Your task to perform on an android device: Search for sushi restaurants on Maps Image 0: 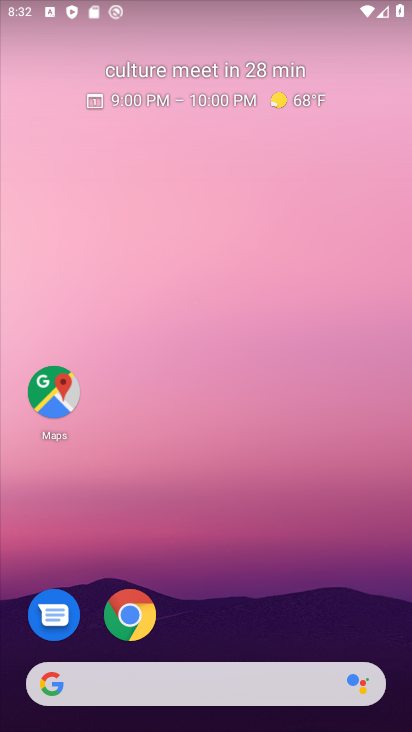
Step 0: click (52, 382)
Your task to perform on an android device: Search for sushi restaurants on Maps Image 1: 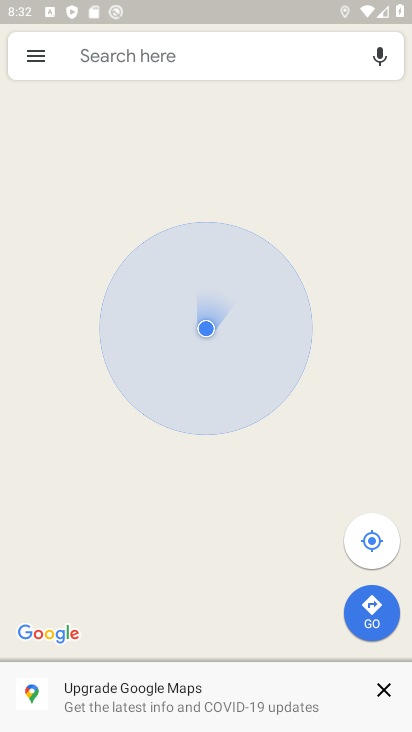
Step 1: click (128, 45)
Your task to perform on an android device: Search for sushi restaurants on Maps Image 2: 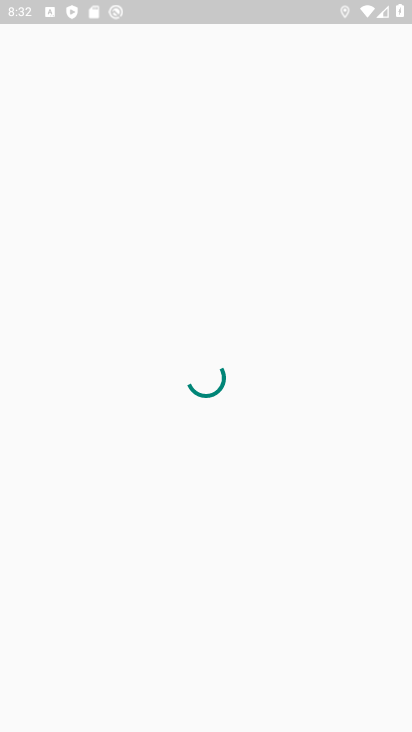
Step 2: click (105, 53)
Your task to perform on an android device: Search for sushi restaurants on Maps Image 3: 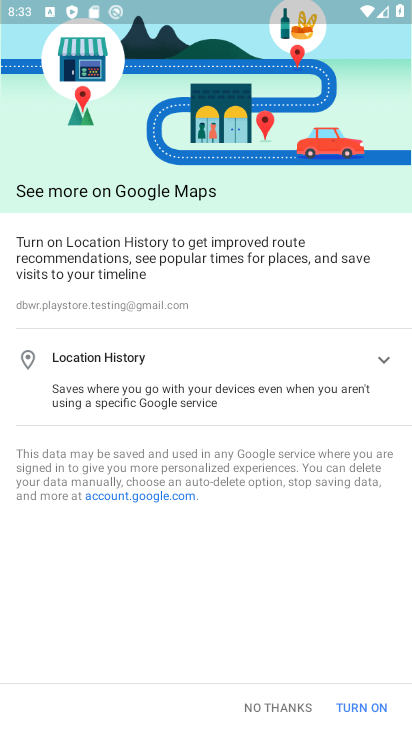
Step 3: click (355, 709)
Your task to perform on an android device: Search for sushi restaurants on Maps Image 4: 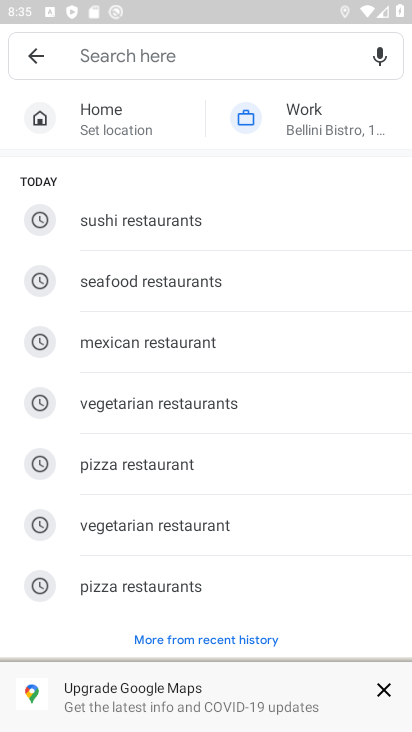
Step 4: click (178, 54)
Your task to perform on an android device: Search for sushi restaurants on Maps Image 5: 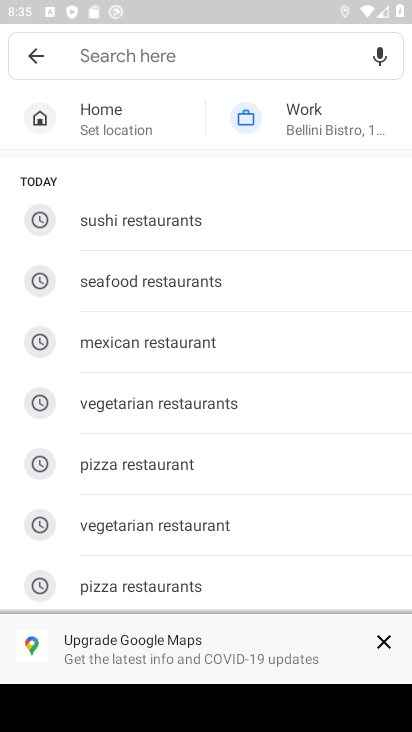
Step 5: type "sushi restaurants "
Your task to perform on an android device: Search for sushi restaurants on Maps Image 6: 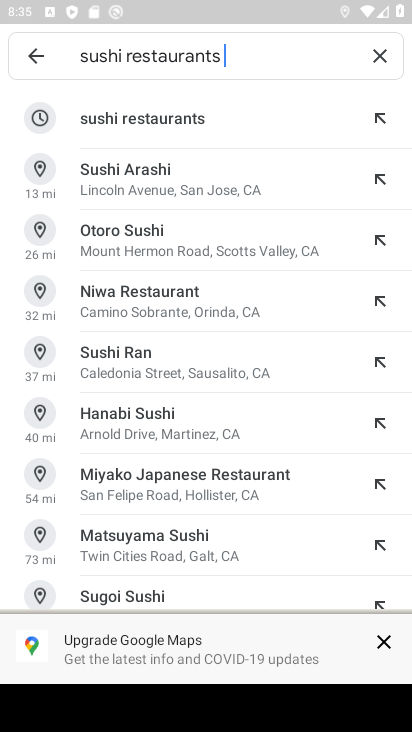
Step 6: click (108, 125)
Your task to perform on an android device: Search for sushi restaurants on Maps Image 7: 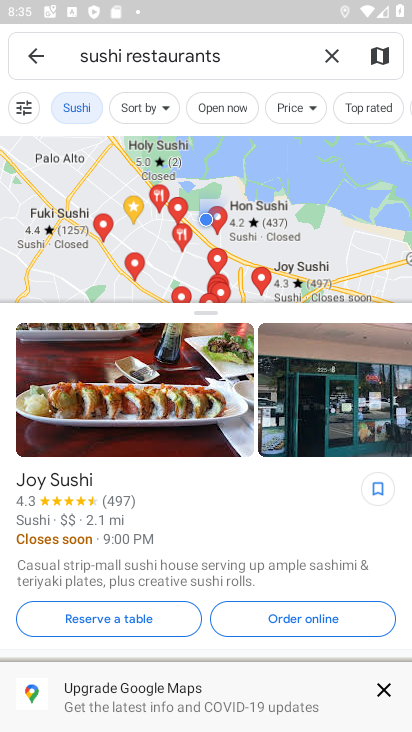
Step 7: task complete